Your task to perform on an android device: Clear the shopping cart on amazon. Image 0: 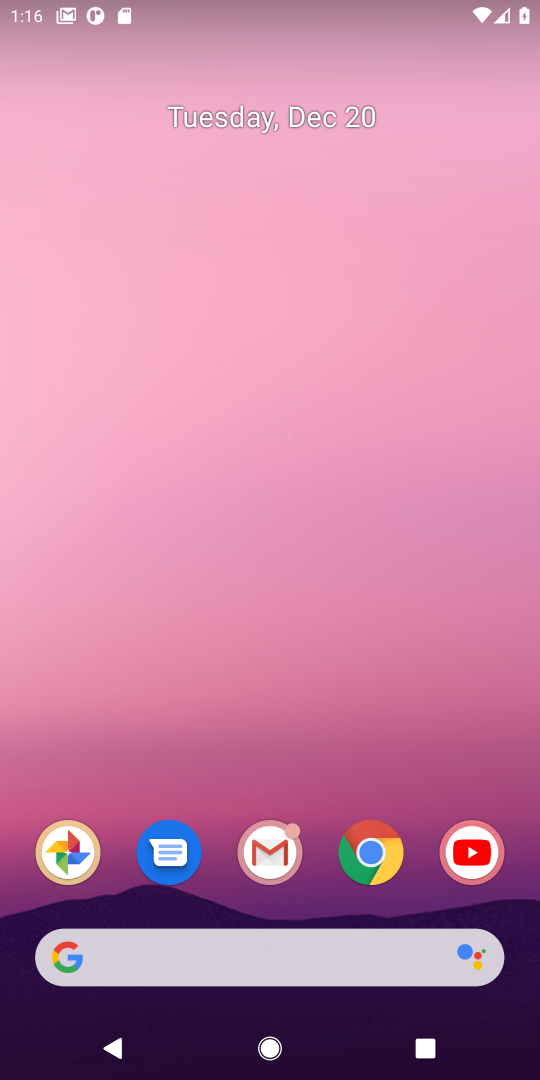
Step 0: click (371, 862)
Your task to perform on an android device: Clear the shopping cart on amazon. Image 1: 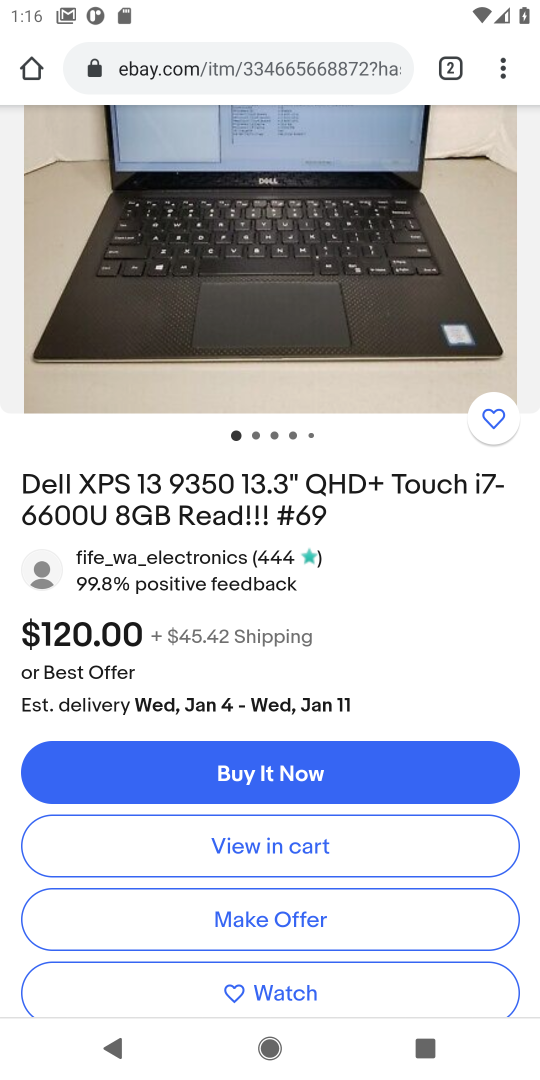
Step 1: click (209, 76)
Your task to perform on an android device: Clear the shopping cart on amazon. Image 2: 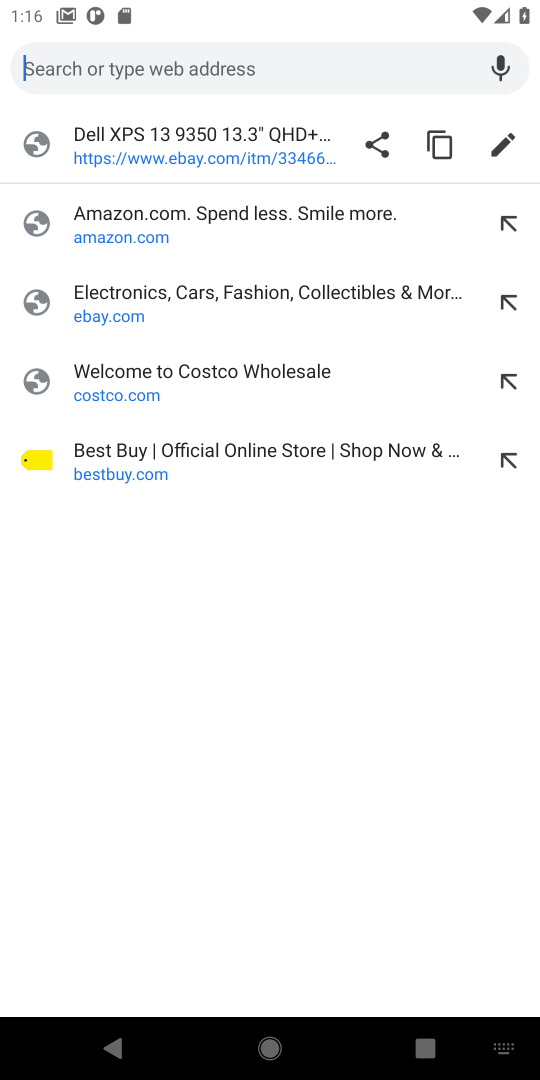
Step 2: click (97, 241)
Your task to perform on an android device: Clear the shopping cart on amazon. Image 3: 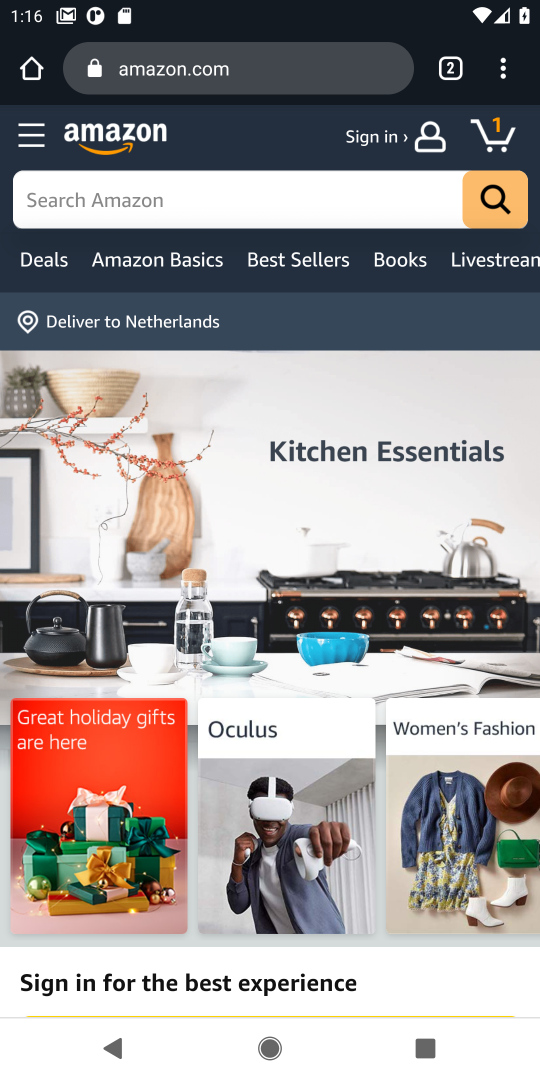
Step 3: click (496, 150)
Your task to perform on an android device: Clear the shopping cart on amazon. Image 4: 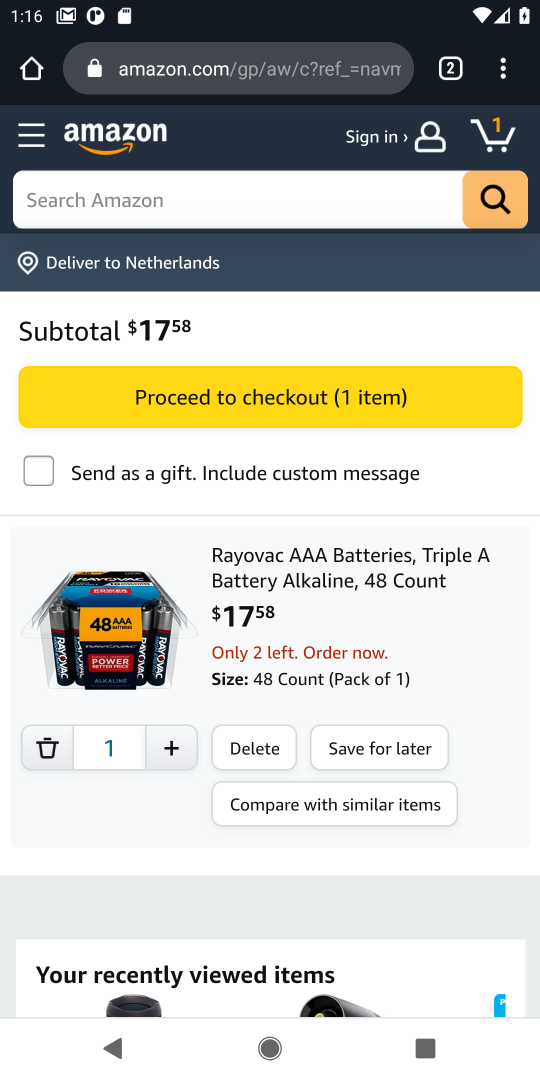
Step 4: click (249, 746)
Your task to perform on an android device: Clear the shopping cart on amazon. Image 5: 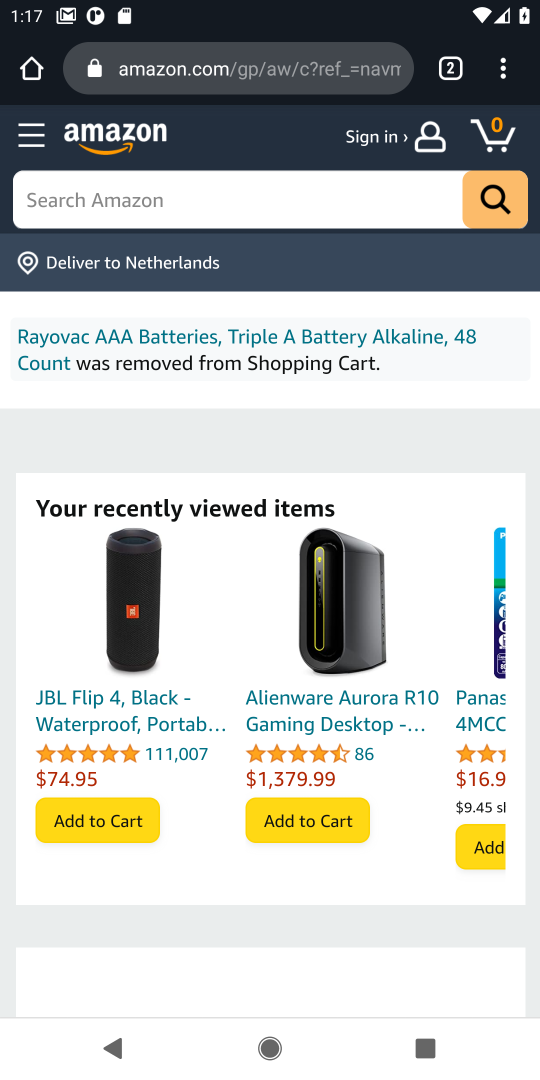
Step 5: task complete